Your task to perform on an android device: see creations saved in the google photos Image 0: 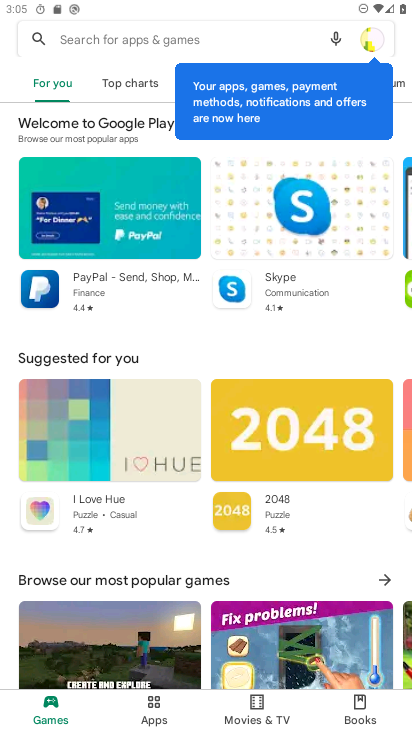
Step 0: press home button
Your task to perform on an android device: see creations saved in the google photos Image 1: 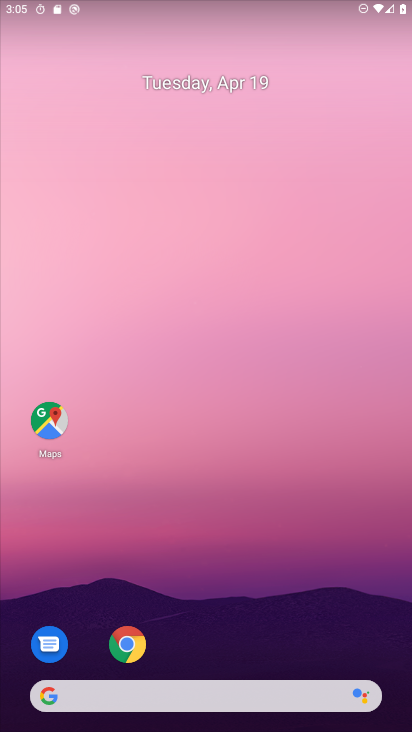
Step 1: drag from (197, 589) to (97, 160)
Your task to perform on an android device: see creations saved in the google photos Image 2: 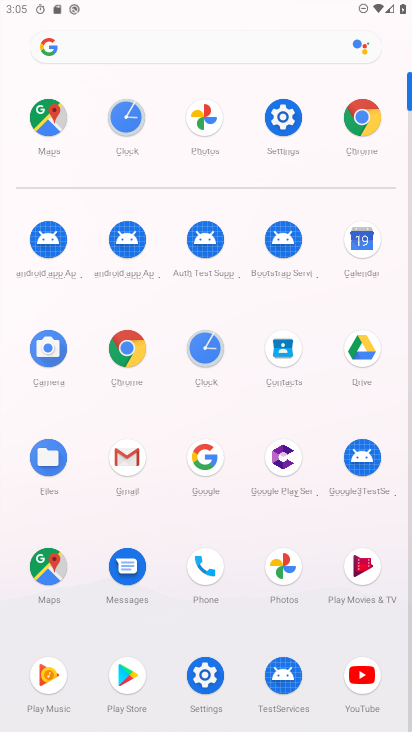
Step 2: click (279, 568)
Your task to perform on an android device: see creations saved in the google photos Image 3: 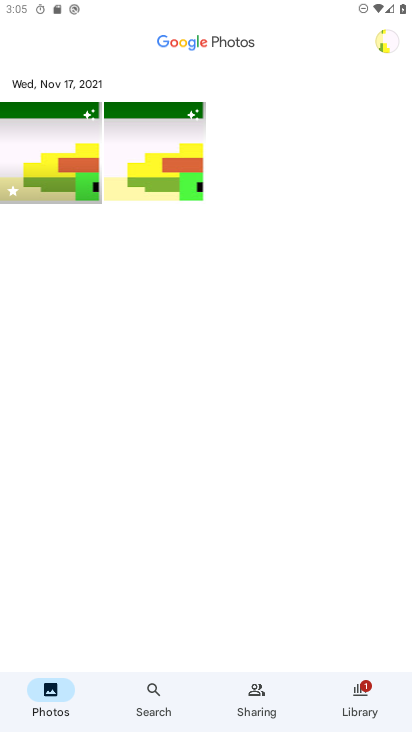
Step 3: click (347, 700)
Your task to perform on an android device: see creations saved in the google photos Image 4: 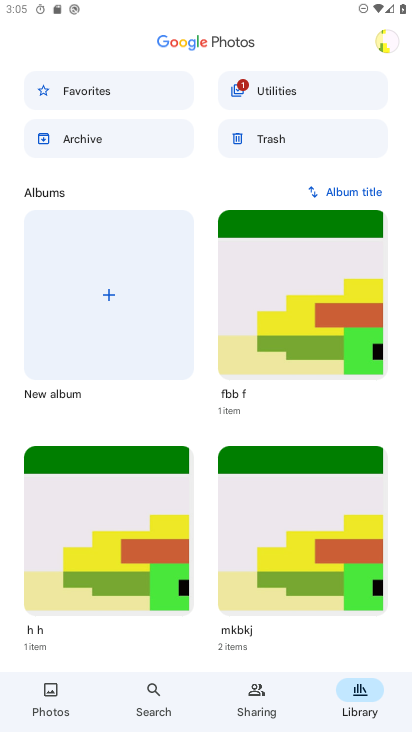
Step 4: click (146, 697)
Your task to perform on an android device: see creations saved in the google photos Image 5: 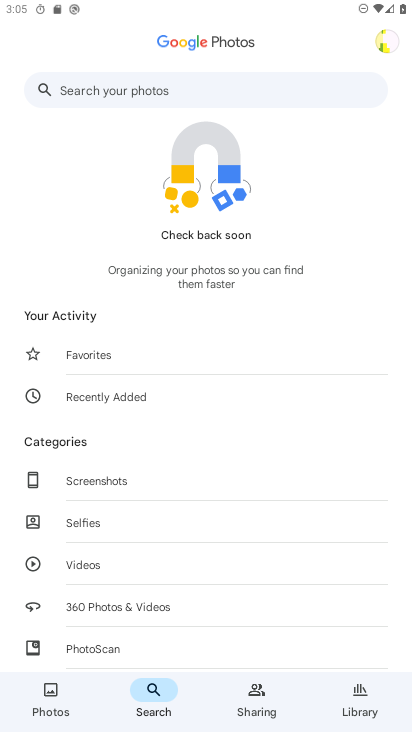
Step 5: drag from (126, 604) to (127, 310)
Your task to perform on an android device: see creations saved in the google photos Image 6: 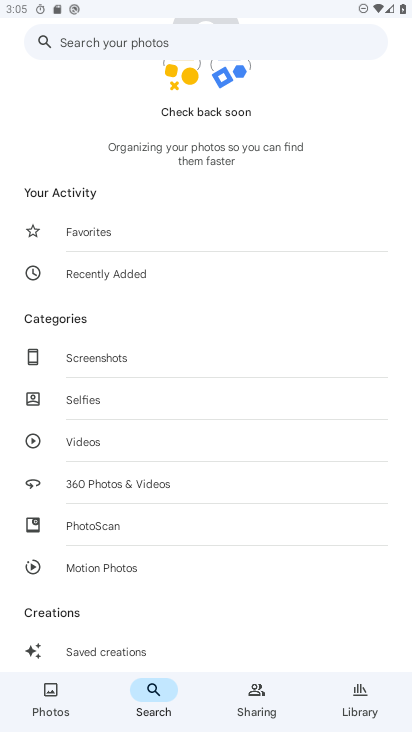
Step 6: click (108, 649)
Your task to perform on an android device: see creations saved in the google photos Image 7: 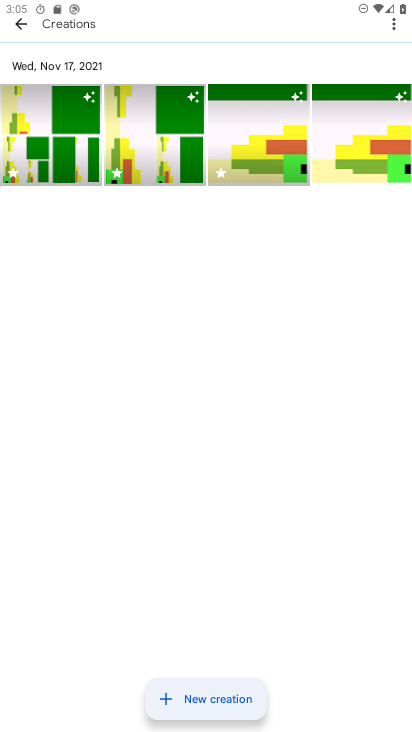
Step 7: task complete